Your task to perform on an android device: Open wifi settings Image 0: 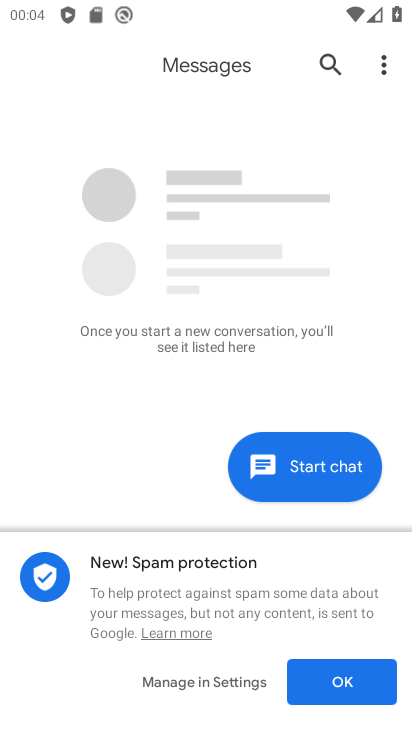
Step 0: press home button
Your task to perform on an android device: Open wifi settings Image 1: 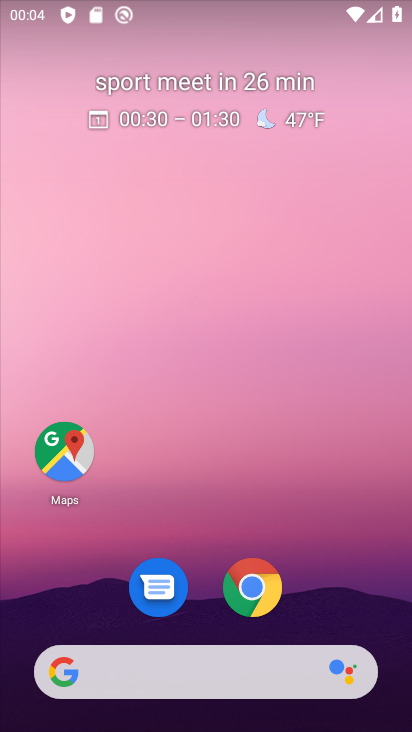
Step 1: drag from (398, 657) to (365, 217)
Your task to perform on an android device: Open wifi settings Image 2: 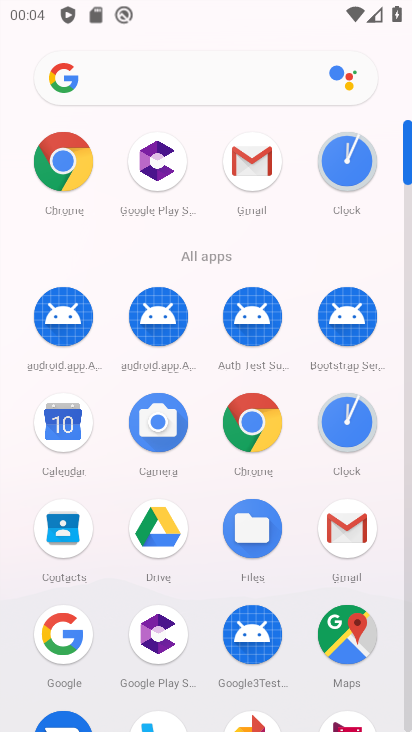
Step 2: click (406, 132)
Your task to perform on an android device: Open wifi settings Image 3: 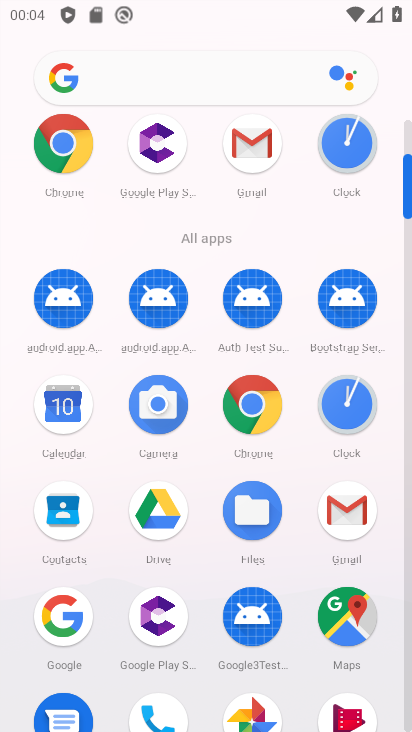
Step 3: drag from (408, 140) to (404, 60)
Your task to perform on an android device: Open wifi settings Image 4: 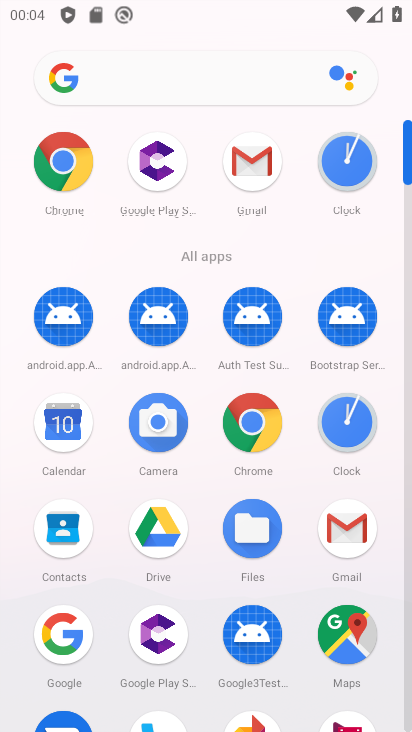
Step 4: drag from (408, 131) to (402, 87)
Your task to perform on an android device: Open wifi settings Image 5: 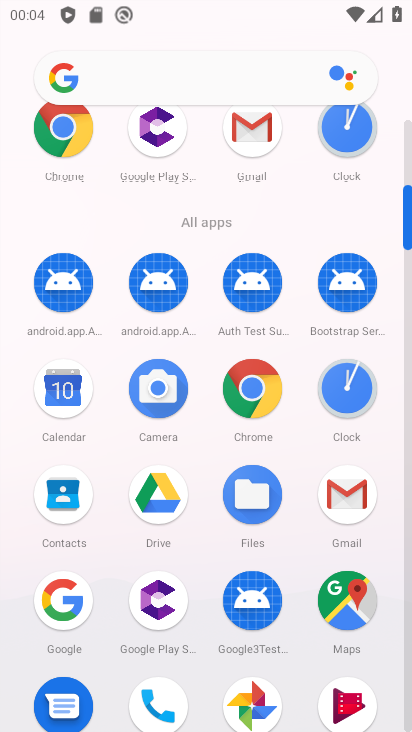
Step 5: drag from (403, 164) to (399, 112)
Your task to perform on an android device: Open wifi settings Image 6: 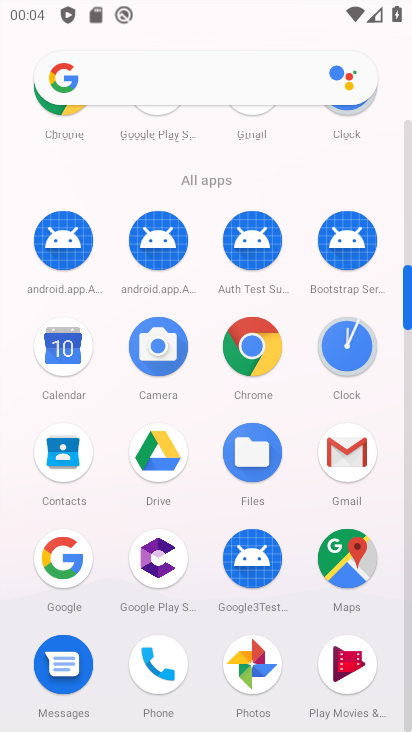
Step 6: drag from (405, 270) to (404, 159)
Your task to perform on an android device: Open wifi settings Image 7: 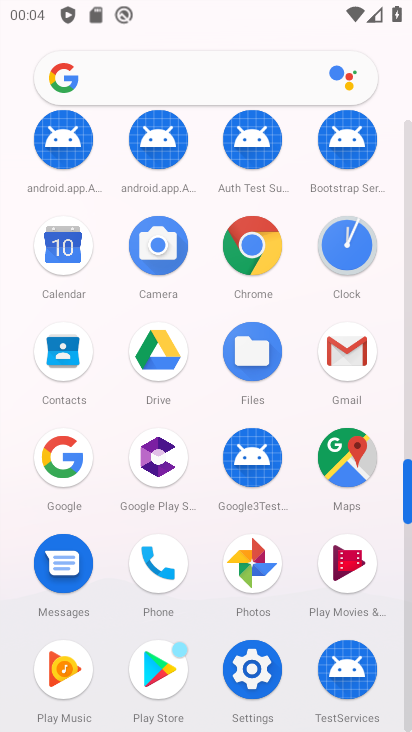
Step 7: click (256, 664)
Your task to perform on an android device: Open wifi settings Image 8: 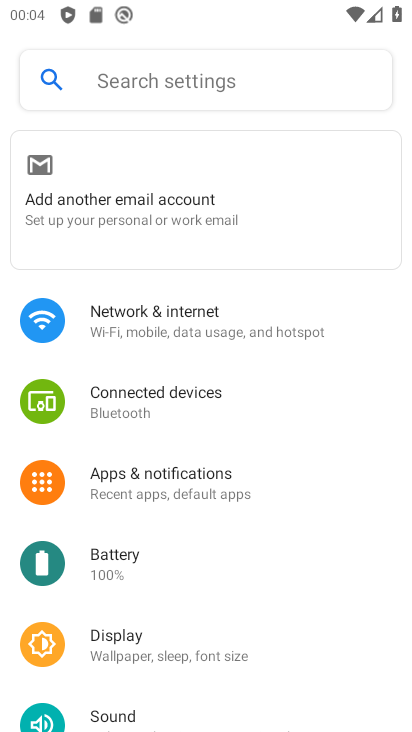
Step 8: click (133, 324)
Your task to perform on an android device: Open wifi settings Image 9: 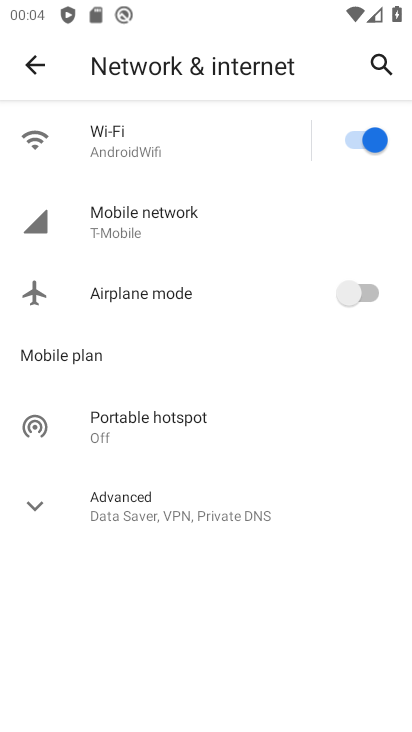
Step 9: click (152, 136)
Your task to perform on an android device: Open wifi settings Image 10: 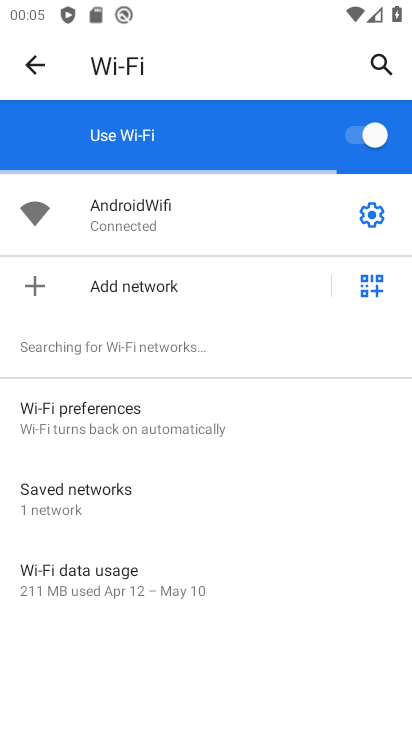
Step 10: task complete